Your task to perform on an android device: Open calendar and show me the first week of next month Image 0: 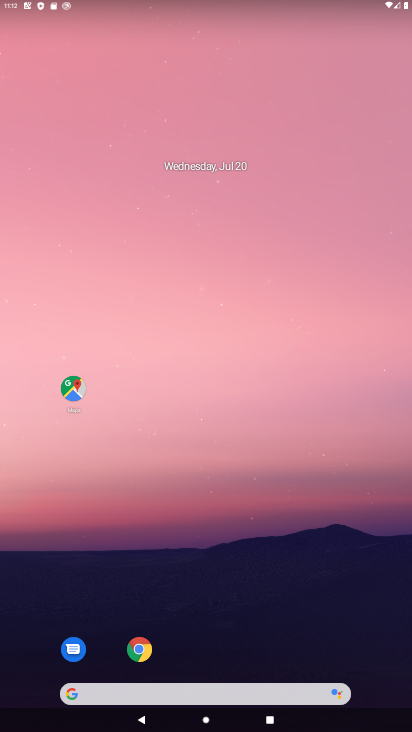
Step 0: drag from (302, 632) to (259, 139)
Your task to perform on an android device: Open calendar and show me the first week of next month Image 1: 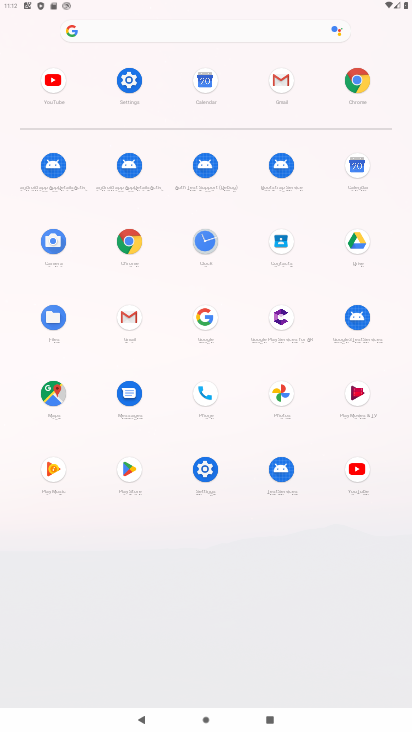
Step 1: click (203, 82)
Your task to perform on an android device: Open calendar and show me the first week of next month Image 2: 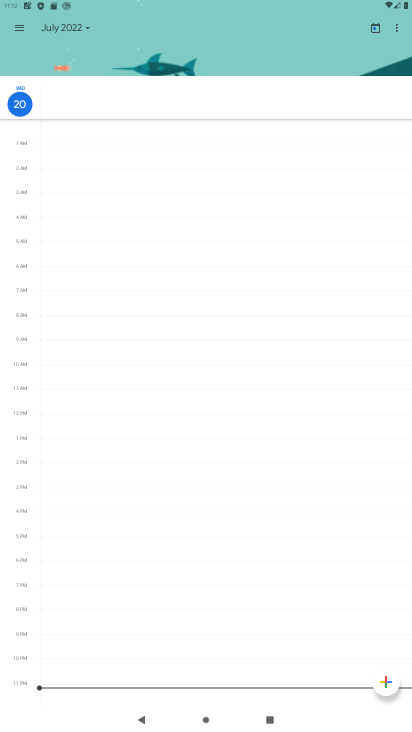
Step 2: click (83, 28)
Your task to perform on an android device: Open calendar and show me the first week of next month Image 3: 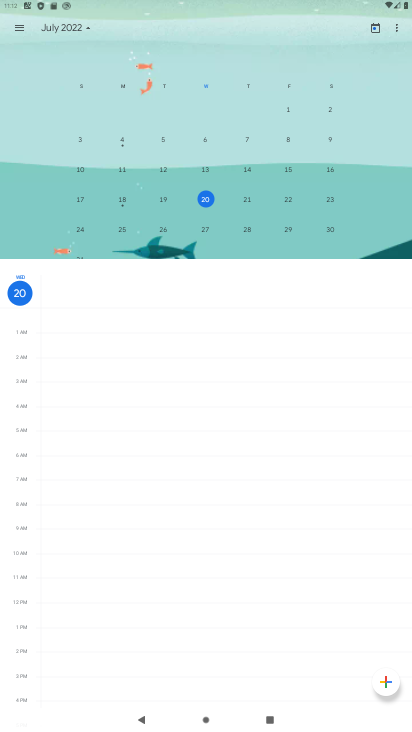
Step 3: task complete